Your task to perform on an android device: Do I have any events today? Image 0: 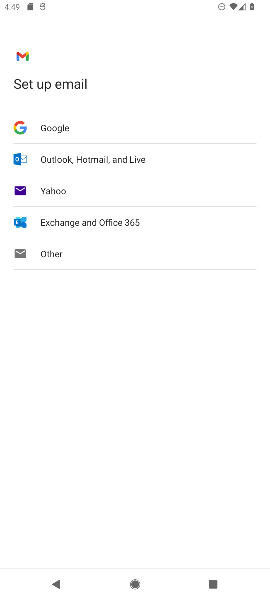
Step 0: press home button
Your task to perform on an android device: Do I have any events today? Image 1: 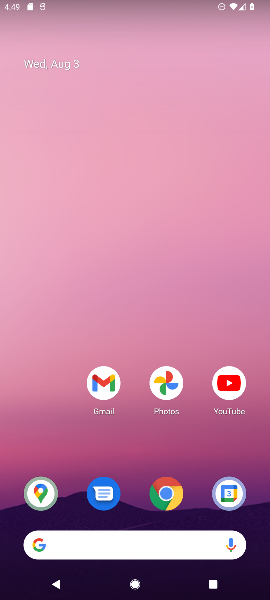
Step 1: drag from (59, 468) to (64, 125)
Your task to perform on an android device: Do I have any events today? Image 2: 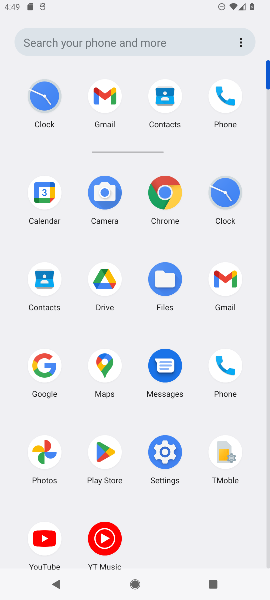
Step 2: click (44, 197)
Your task to perform on an android device: Do I have any events today? Image 3: 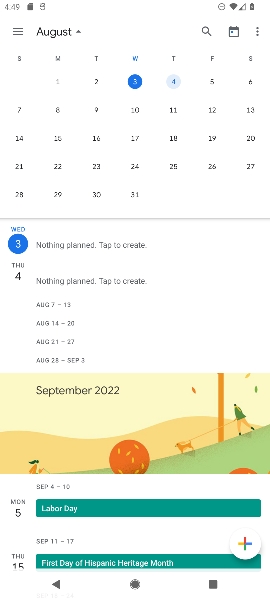
Step 3: task complete